Your task to perform on an android device: turn on the 12-hour format for clock Image 0: 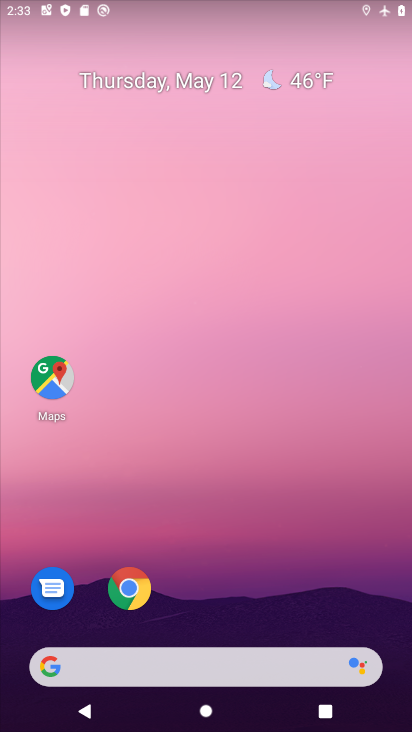
Step 0: drag from (404, 628) to (304, 107)
Your task to perform on an android device: turn on the 12-hour format for clock Image 1: 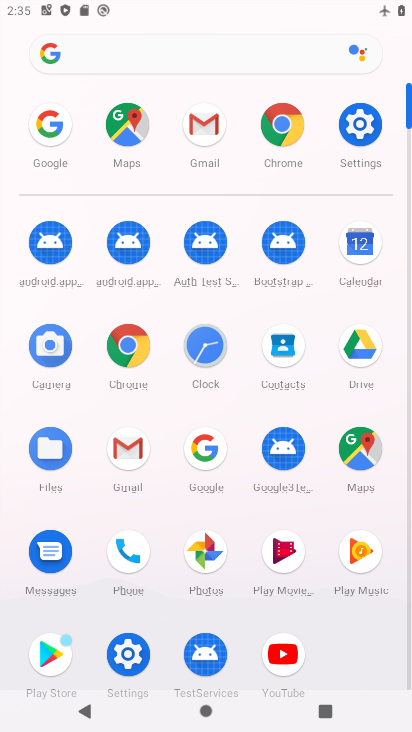
Step 1: click (214, 362)
Your task to perform on an android device: turn on the 12-hour format for clock Image 2: 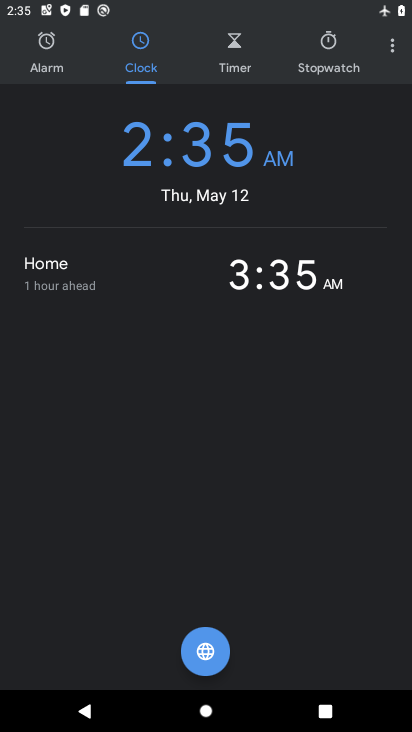
Step 2: click (388, 37)
Your task to perform on an android device: turn on the 12-hour format for clock Image 3: 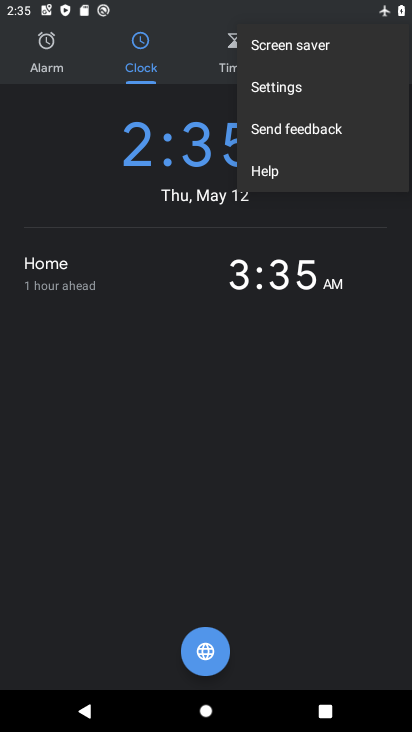
Step 3: click (345, 82)
Your task to perform on an android device: turn on the 12-hour format for clock Image 4: 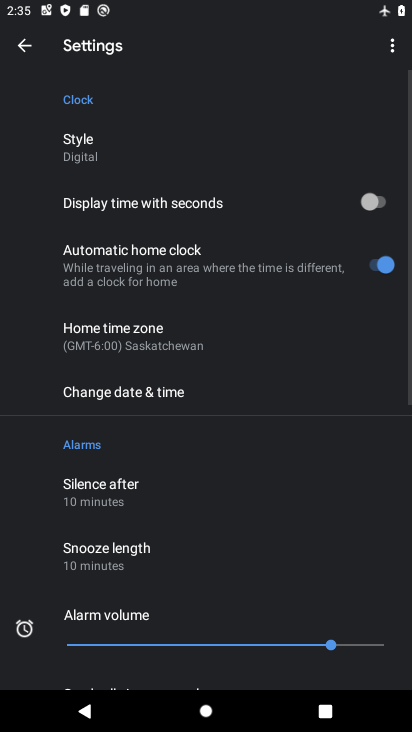
Step 4: click (216, 391)
Your task to perform on an android device: turn on the 12-hour format for clock Image 5: 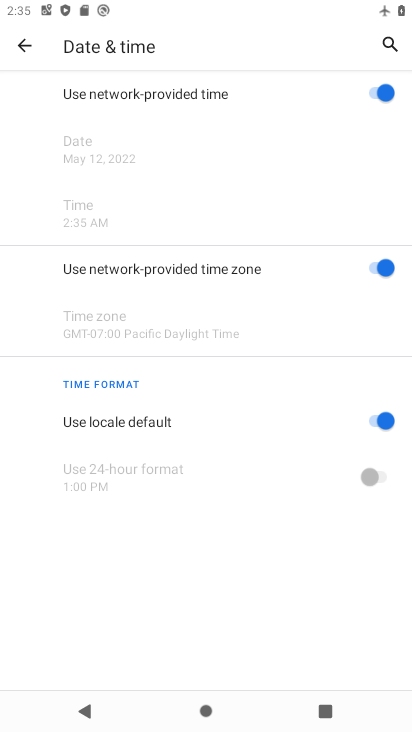
Step 5: task complete